Your task to perform on an android device: turn on wifi Image 0: 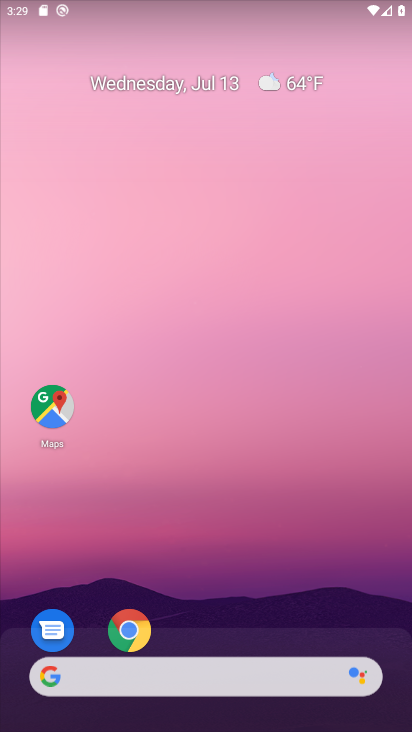
Step 0: drag from (173, 5) to (146, 500)
Your task to perform on an android device: turn on wifi Image 1: 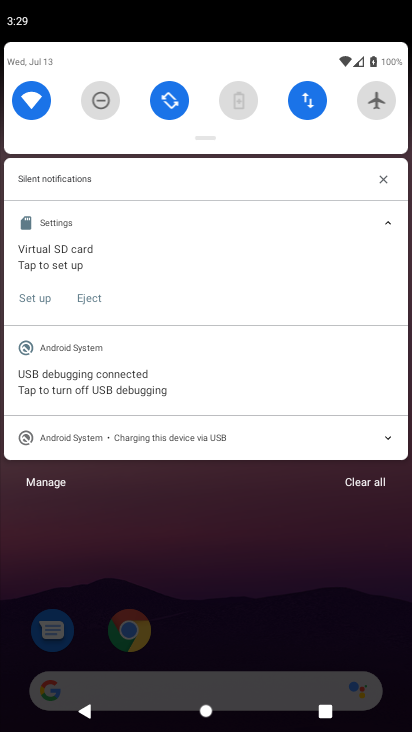
Step 1: task complete